Your task to perform on an android device: Add razer thresher to the cart on bestbuy, then select checkout. Image 0: 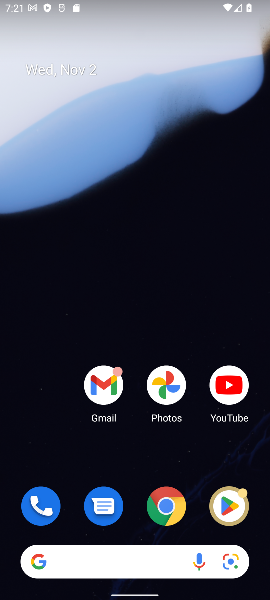
Step 0: click (102, 566)
Your task to perform on an android device: Add razer thresher to the cart on bestbuy, then select checkout. Image 1: 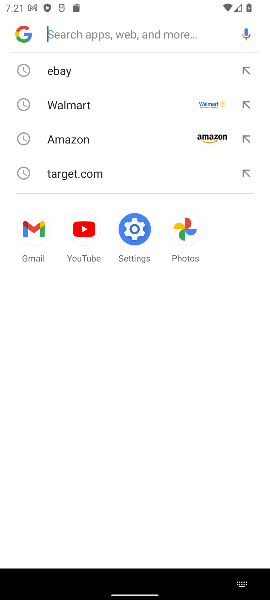
Step 1: type " bestbuy"
Your task to perform on an android device: Add razer thresher to the cart on bestbuy, then select checkout. Image 2: 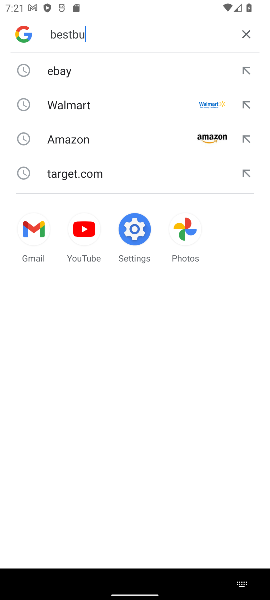
Step 2: type ""
Your task to perform on an android device: Add razer thresher to the cart on bestbuy, then select checkout. Image 3: 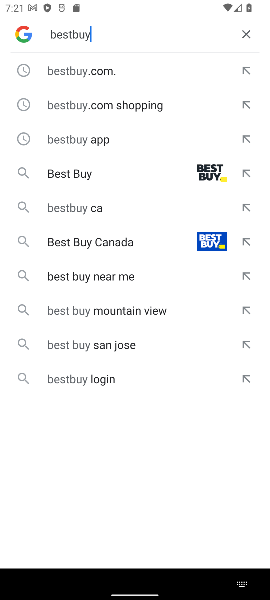
Step 3: press enter
Your task to perform on an android device: Add razer thresher to the cart on bestbuy, then select checkout. Image 4: 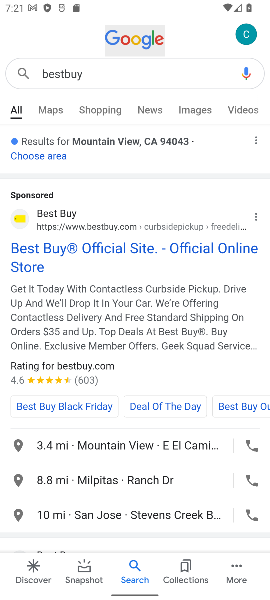
Step 4: click (132, 240)
Your task to perform on an android device: Add razer thresher to the cart on bestbuy, then select checkout. Image 5: 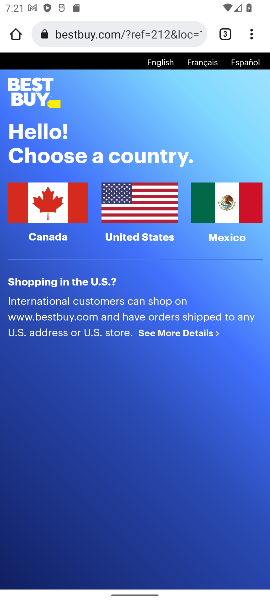
Step 5: click (124, 192)
Your task to perform on an android device: Add razer thresher to the cart on bestbuy, then select checkout. Image 6: 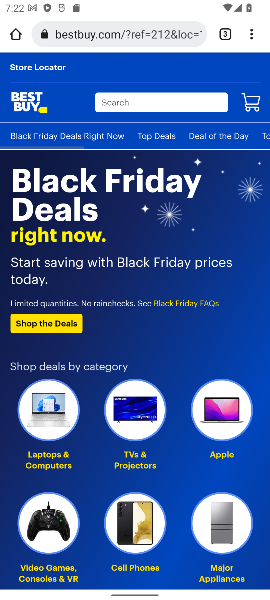
Step 6: click (117, 106)
Your task to perform on an android device: Add razer thresher to the cart on bestbuy, then select checkout. Image 7: 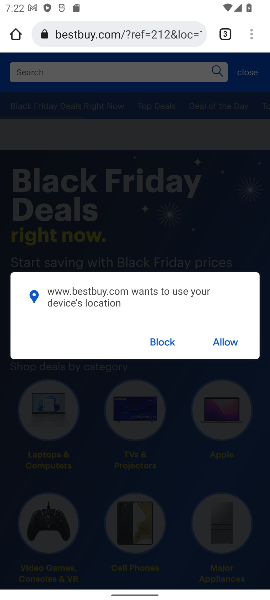
Step 7: click (167, 332)
Your task to perform on an android device: Add razer thresher to the cart on bestbuy, then select checkout. Image 8: 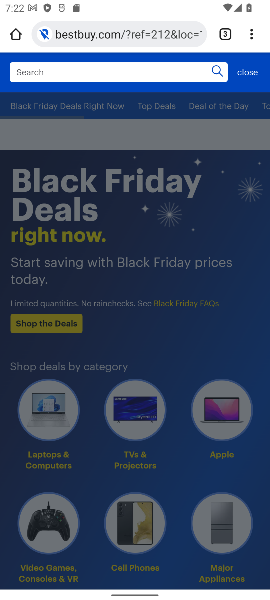
Step 8: click (158, 338)
Your task to perform on an android device: Add razer thresher to the cart on bestbuy, then select checkout. Image 9: 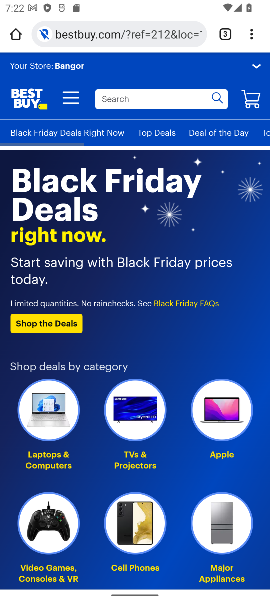
Step 9: click (123, 96)
Your task to perform on an android device: Add razer thresher to the cart on bestbuy, then select checkout. Image 10: 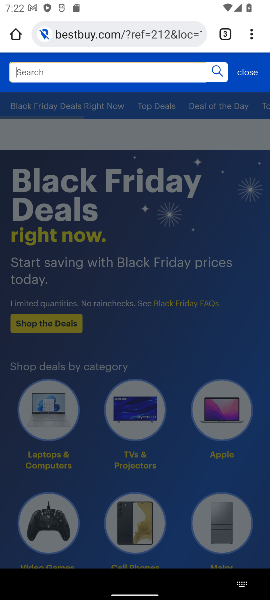
Step 10: click (51, 74)
Your task to perform on an android device: Add razer thresher to the cart on bestbuy, then select checkout. Image 11: 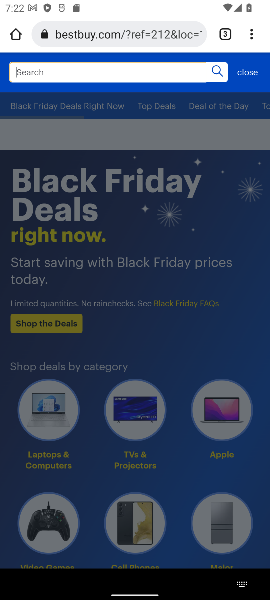
Step 11: type "razer thresher"
Your task to perform on an android device: Add razer thresher to the cart on bestbuy, then select checkout. Image 12: 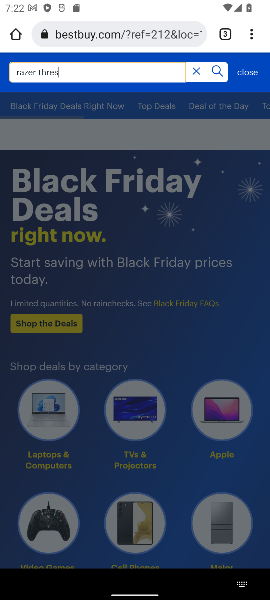
Step 12: type ""
Your task to perform on an android device: Add razer thresher to the cart on bestbuy, then select checkout. Image 13: 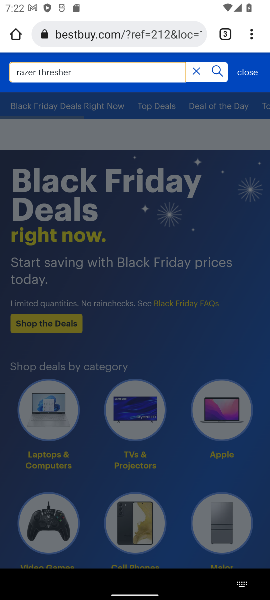
Step 13: press enter
Your task to perform on an android device: Add razer thresher to the cart on bestbuy, then select checkout. Image 14: 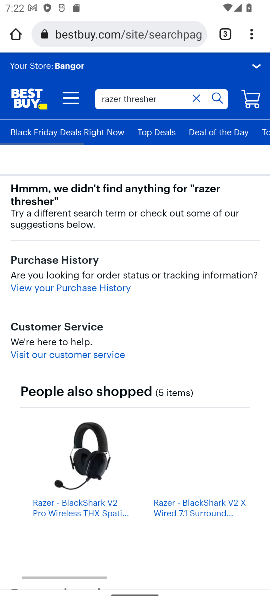
Step 14: press enter
Your task to perform on an android device: Add razer thresher to the cart on bestbuy, then select checkout. Image 15: 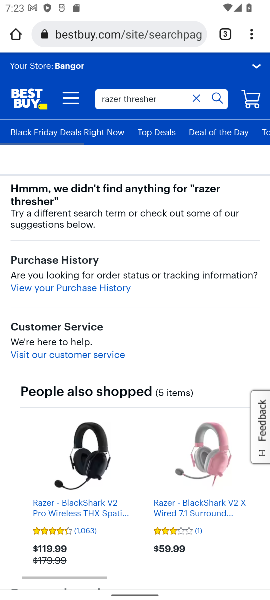
Step 15: click (220, 95)
Your task to perform on an android device: Add razer thresher to the cart on bestbuy, then select checkout. Image 16: 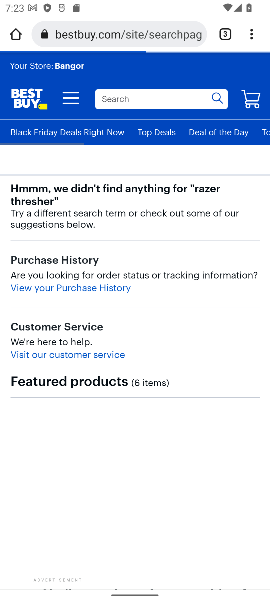
Step 16: click (216, 71)
Your task to perform on an android device: Add razer thresher to the cart on bestbuy, then select checkout. Image 17: 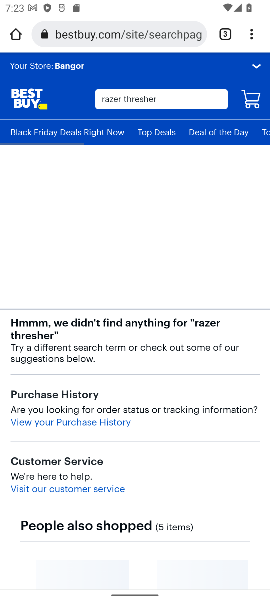
Step 17: drag from (196, 452) to (191, 154)
Your task to perform on an android device: Add razer thresher to the cart on bestbuy, then select checkout. Image 18: 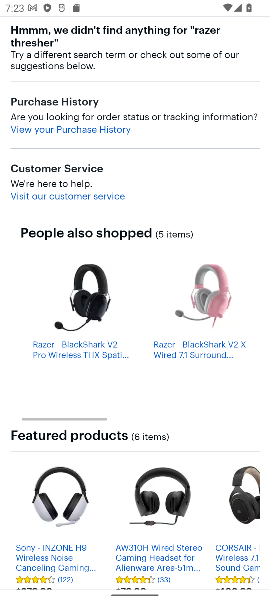
Step 18: click (82, 347)
Your task to perform on an android device: Add razer thresher to the cart on bestbuy, then select checkout. Image 19: 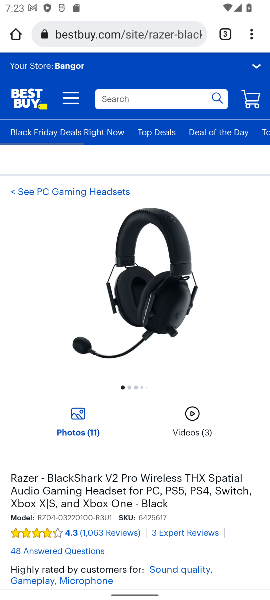
Step 19: drag from (171, 513) to (177, 152)
Your task to perform on an android device: Add razer thresher to the cart on bestbuy, then select checkout. Image 20: 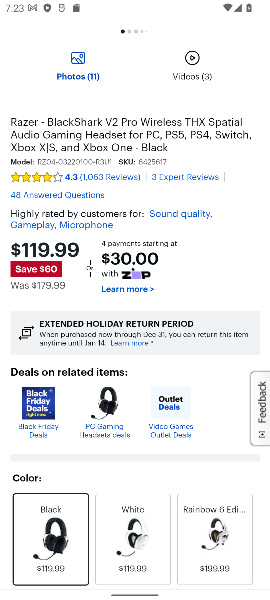
Step 20: drag from (226, 424) to (234, 192)
Your task to perform on an android device: Add razer thresher to the cart on bestbuy, then select checkout. Image 21: 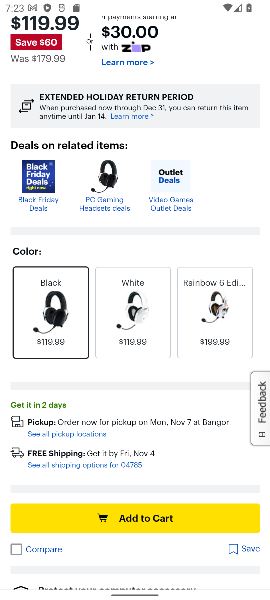
Step 21: click (168, 512)
Your task to perform on an android device: Add razer thresher to the cart on bestbuy, then select checkout. Image 22: 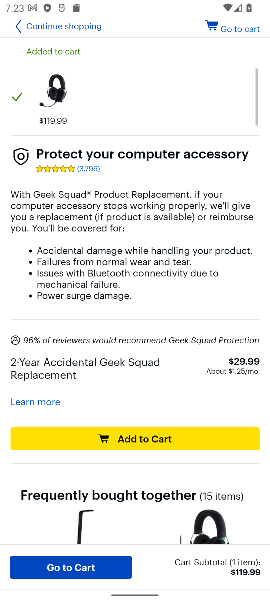
Step 22: click (151, 447)
Your task to perform on an android device: Add razer thresher to the cart on bestbuy, then select checkout. Image 23: 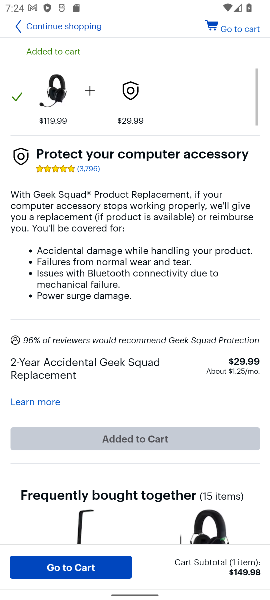
Step 23: task complete